Your task to perform on an android device: Turn off the flashlight Image 0: 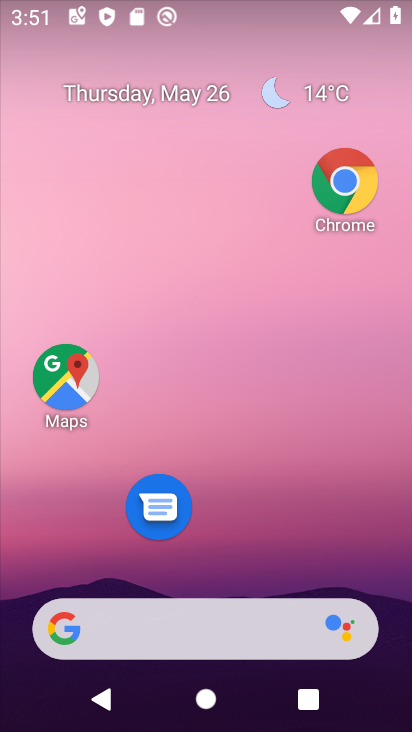
Step 0: drag from (275, 4) to (235, 393)
Your task to perform on an android device: Turn off the flashlight Image 1: 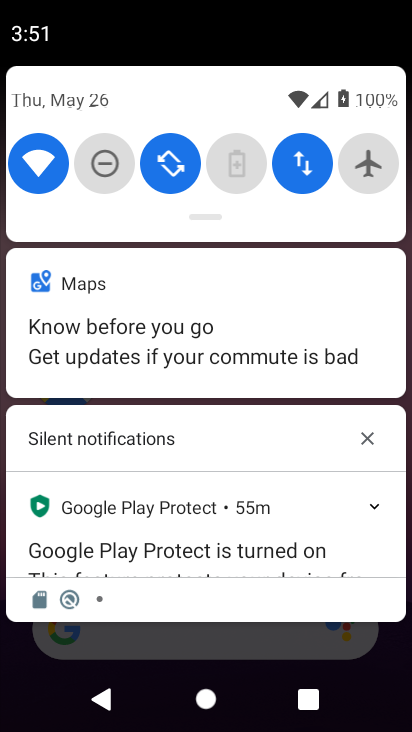
Step 1: task complete